Your task to perform on an android device: change your default location settings in chrome Image 0: 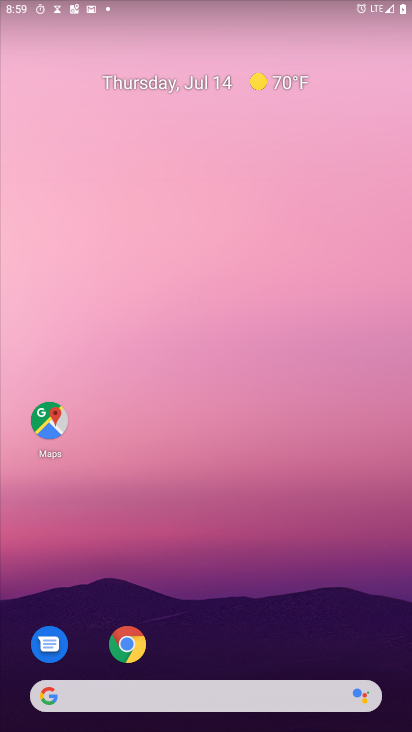
Step 0: click (121, 637)
Your task to perform on an android device: change your default location settings in chrome Image 1: 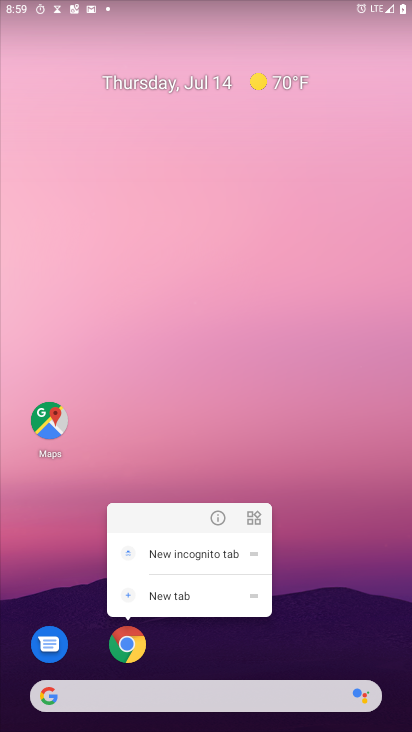
Step 1: click (138, 653)
Your task to perform on an android device: change your default location settings in chrome Image 2: 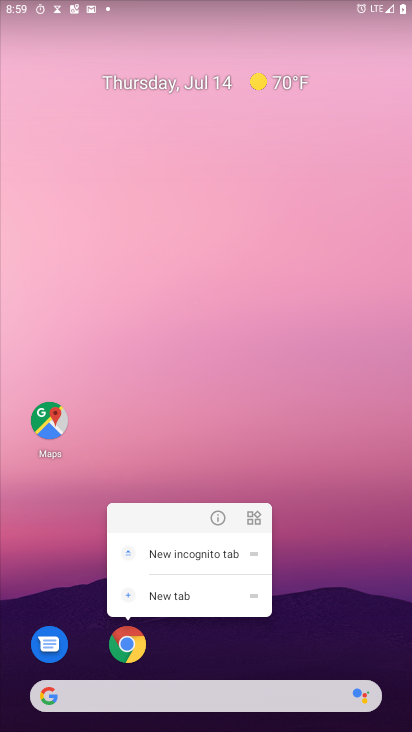
Step 2: click (119, 637)
Your task to perform on an android device: change your default location settings in chrome Image 3: 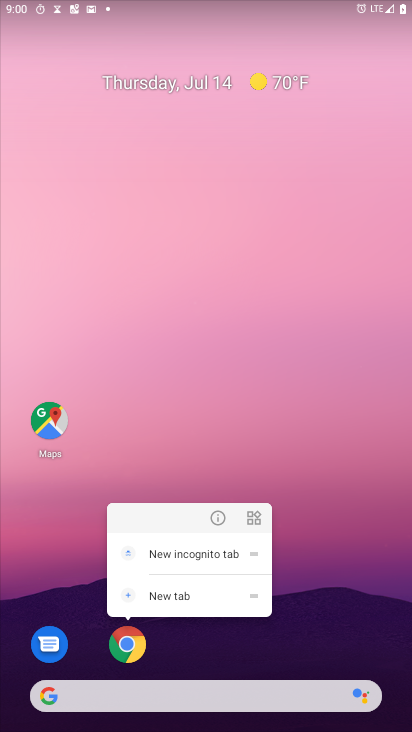
Step 3: click (127, 640)
Your task to perform on an android device: change your default location settings in chrome Image 4: 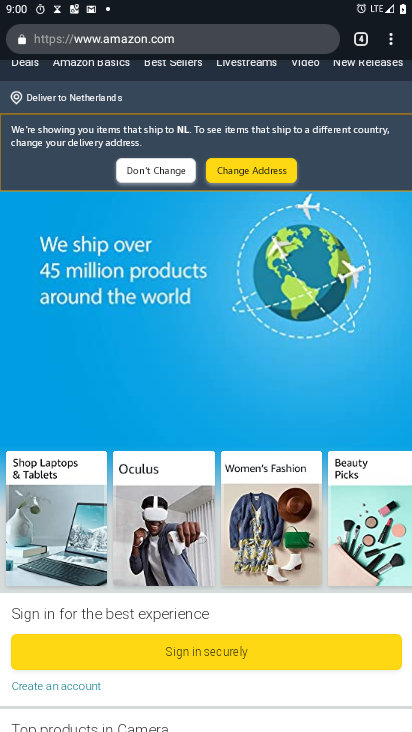
Step 4: drag from (393, 49) to (276, 511)
Your task to perform on an android device: change your default location settings in chrome Image 5: 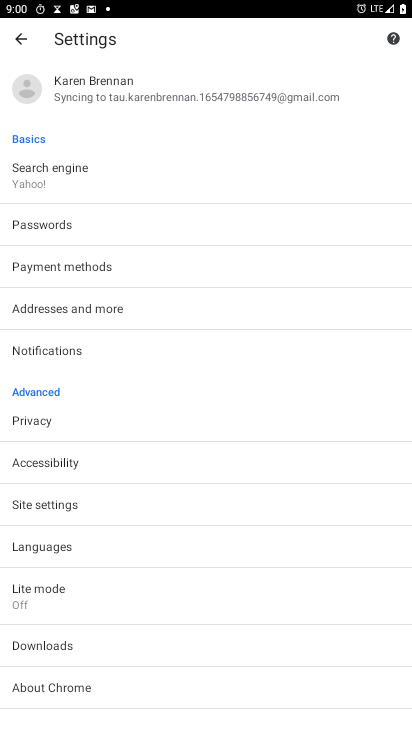
Step 5: click (62, 502)
Your task to perform on an android device: change your default location settings in chrome Image 6: 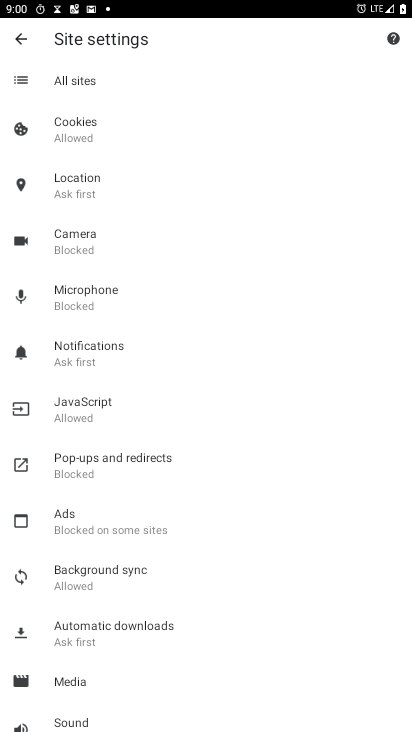
Step 6: click (81, 195)
Your task to perform on an android device: change your default location settings in chrome Image 7: 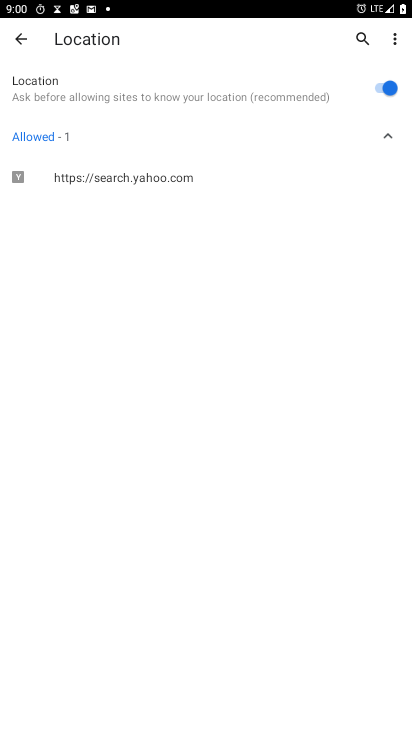
Step 7: click (380, 87)
Your task to perform on an android device: change your default location settings in chrome Image 8: 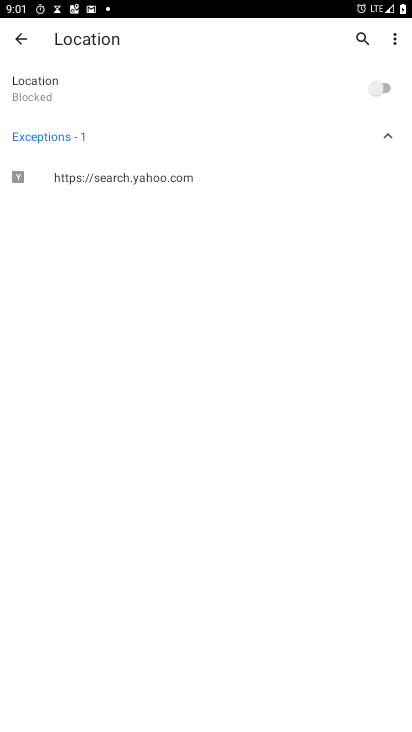
Step 8: task complete